Your task to perform on an android device: Go to display settings Image 0: 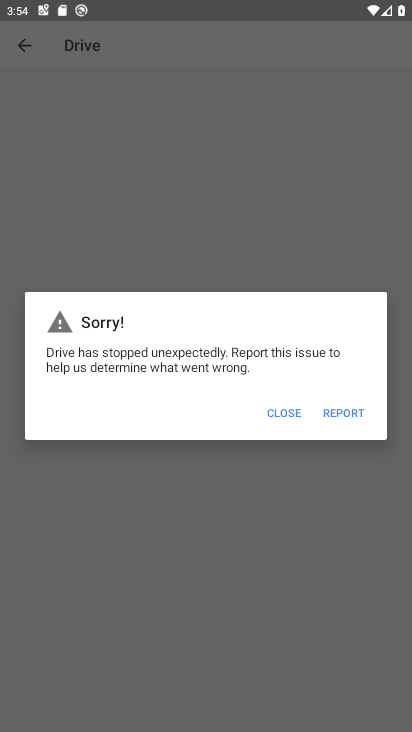
Step 0: press home button
Your task to perform on an android device: Go to display settings Image 1: 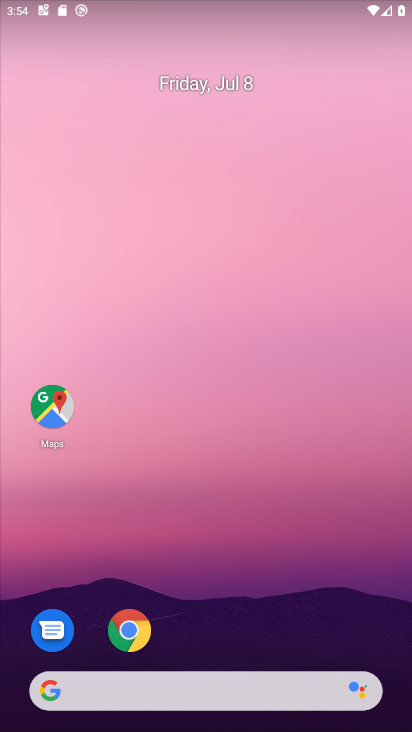
Step 1: drag from (271, 633) to (281, 128)
Your task to perform on an android device: Go to display settings Image 2: 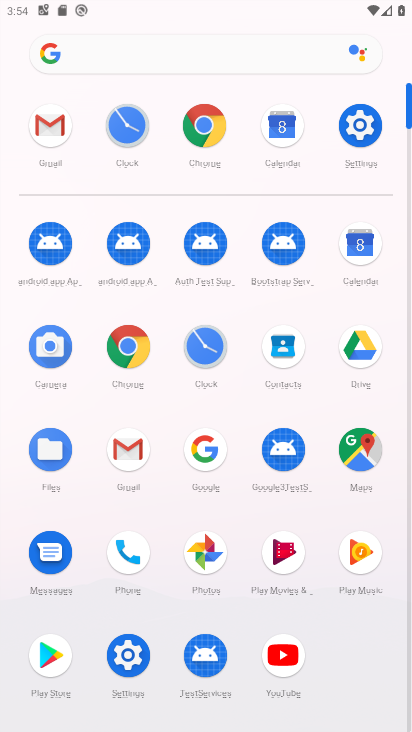
Step 2: click (362, 118)
Your task to perform on an android device: Go to display settings Image 3: 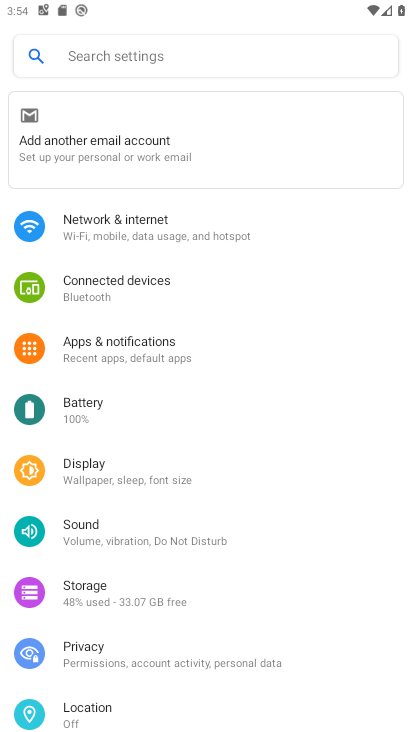
Step 3: click (132, 477)
Your task to perform on an android device: Go to display settings Image 4: 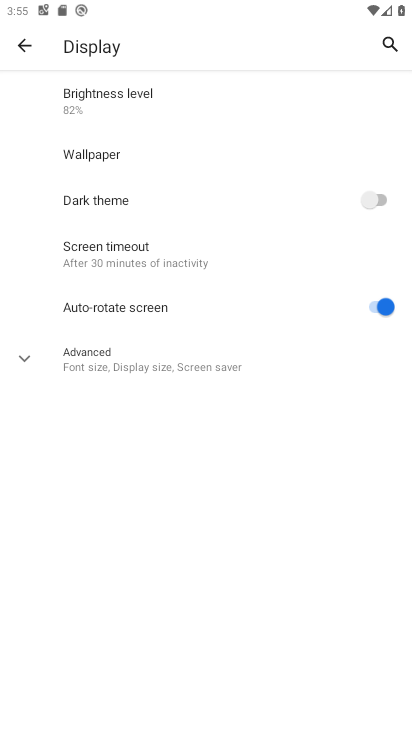
Step 4: task complete